Your task to perform on an android device: open app "Etsy: Buy & Sell Unique Items" (install if not already installed) Image 0: 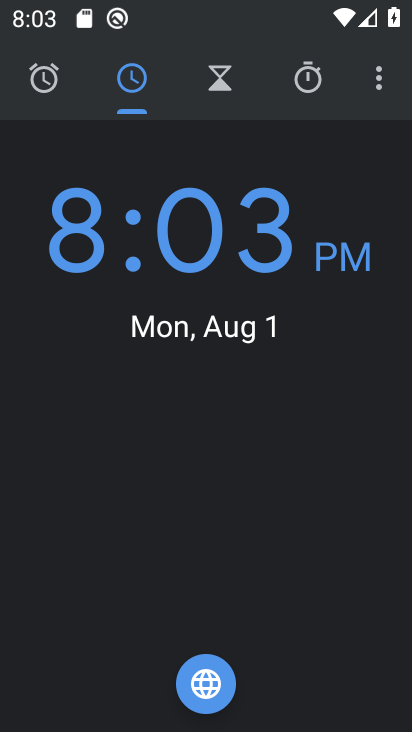
Step 0: press back button
Your task to perform on an android device: open app "Etsy: Buy & Sell Unique Items" (install if not already installed) Image 1: 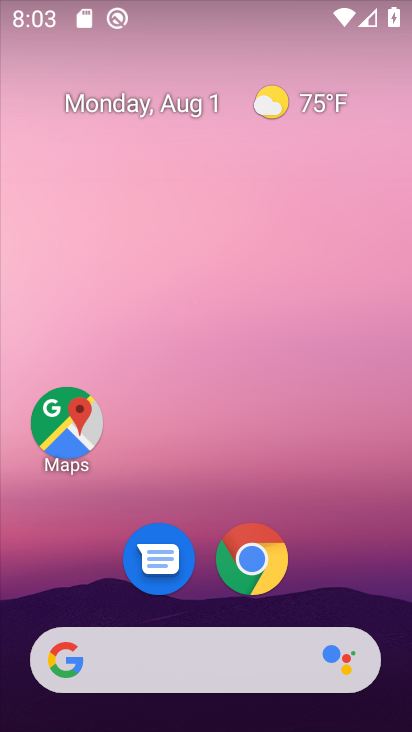
Step 1: drag from (177, 654) to (223, 171)
Your task to perform on an android device: open app "Etsy: Buy & Sell Unique Items" (install if not already installed) Image 2: 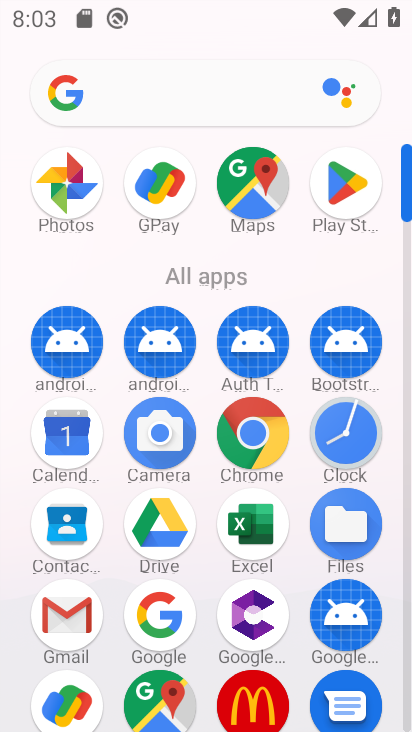
Step 2: click (317, 222)
Your task to perform on an android device: open app "Etsy: Buy & Sell Unique Items" (install if not already installed) Image 3: 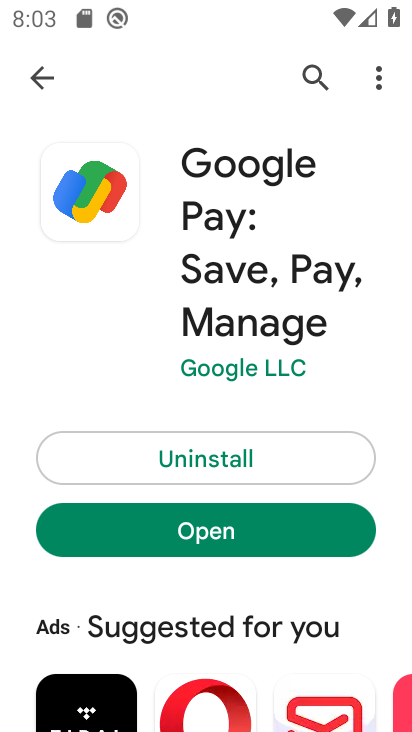
Step 3: click (307, 68)
Your task to perform on an android device: open app "Etsy: Buy & Sell Unique Items" (install if not already installed) Image 4: 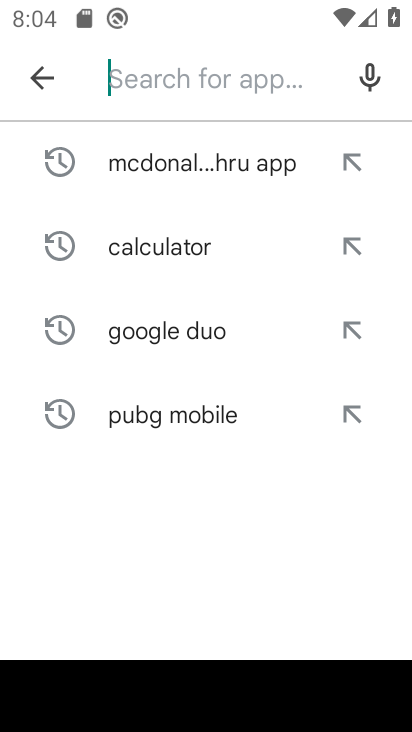
Step 4: type "Etsy: Buy & Sell Unique Items"
Your task to perform on an android device: open app "Etsy: Buy & Sell Unique Items" (install if not already installed) Image 5: 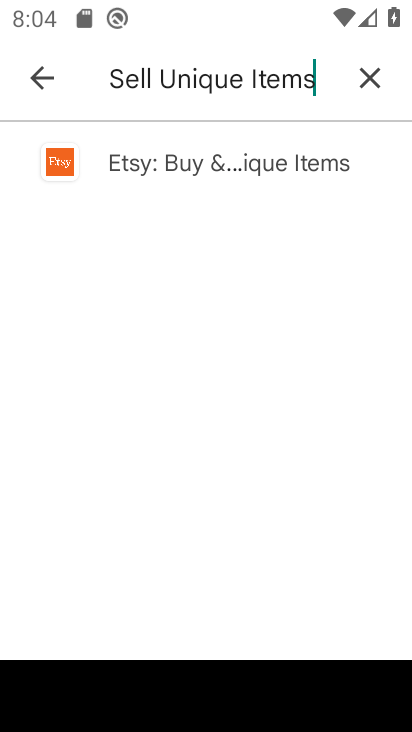
Step 5: click (270, 159)
Your task to perform on an android device: open app "Etsy: Buy & Sell Unique Items" (install if not already installed) Image 6: 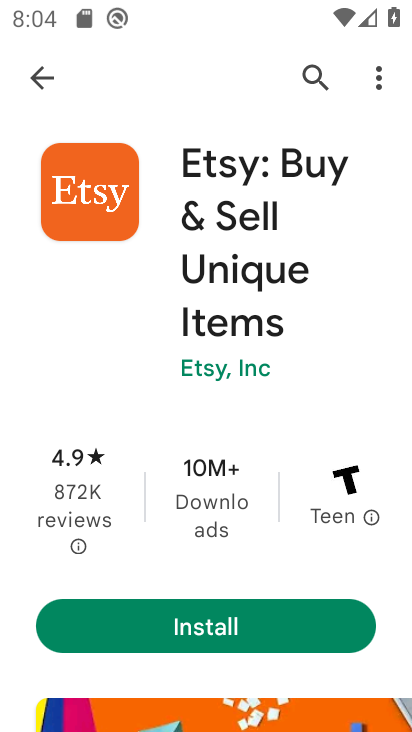
Step 6: click (198, 631)
Your task to perform on an android device: open app "Etsy: Buy & Sell Unique Items" (install if not already installed) Image 7: 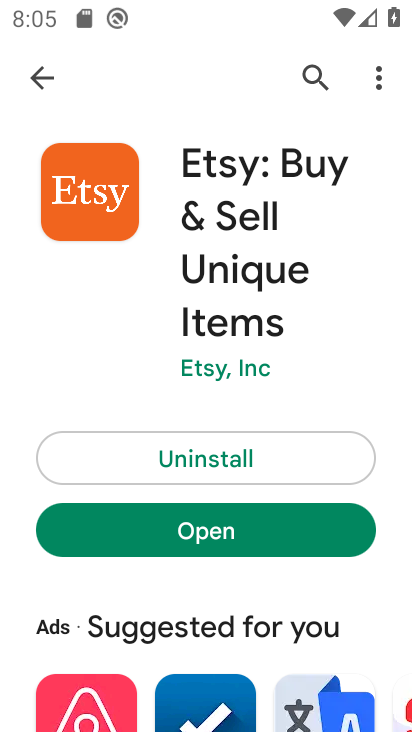
Step 7: click (261, 551)
Your task to perform on an android device: open app "Etsy: Buy & Sell Unique Items" (install if not already installed) Image 8: 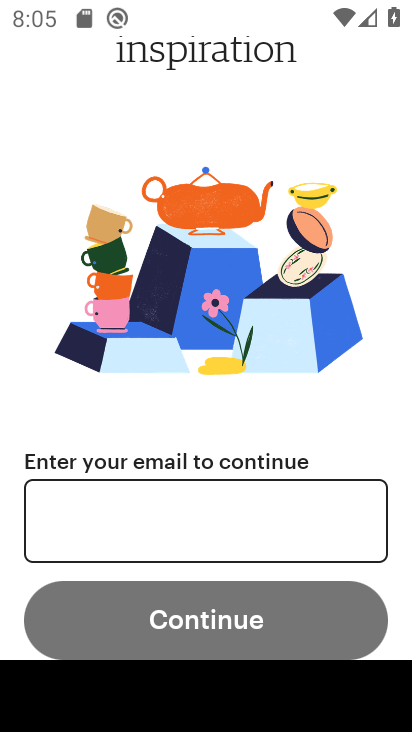
Step 8: task complete